Your task to perform on an android device: Find coffee shops on Maps Image 0: 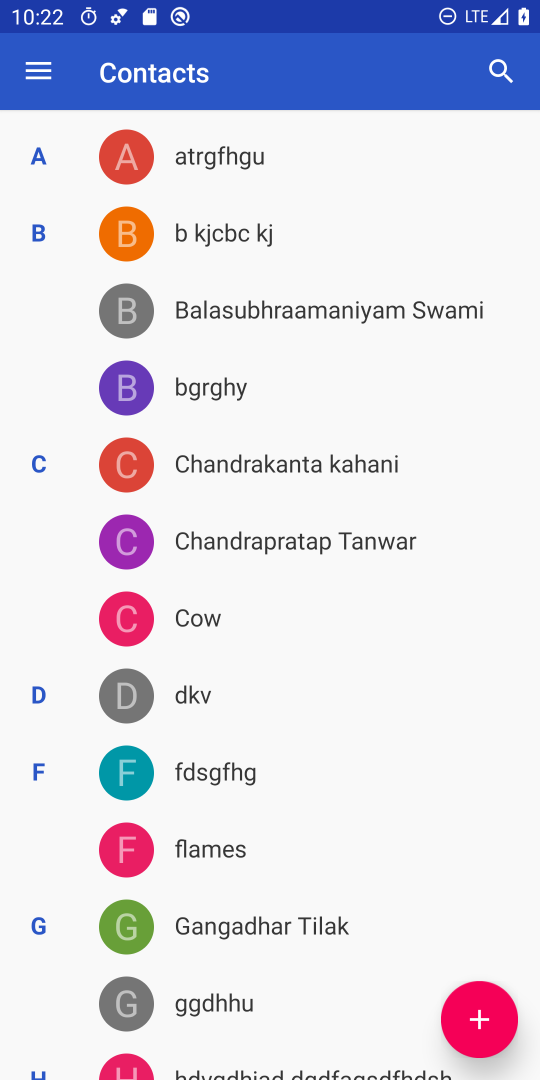
Step 0: press home button
Your task to perform on an android device: Find coffee shops on Maps Image 1: 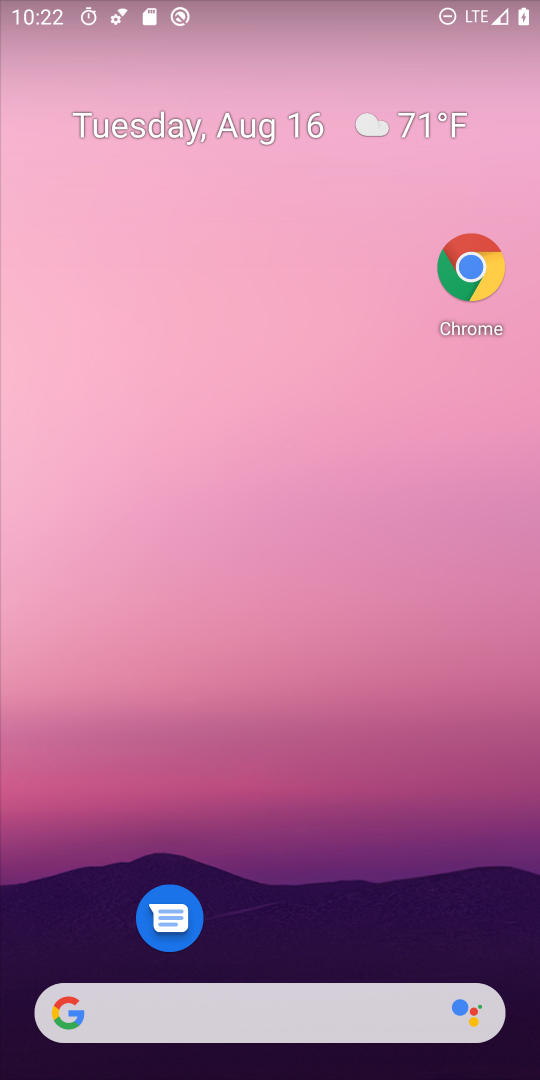
Step 1: drag from (257, 894) to (416, 2)
Your task to perform on an android device: Find coffee shops on Maps Image 2: 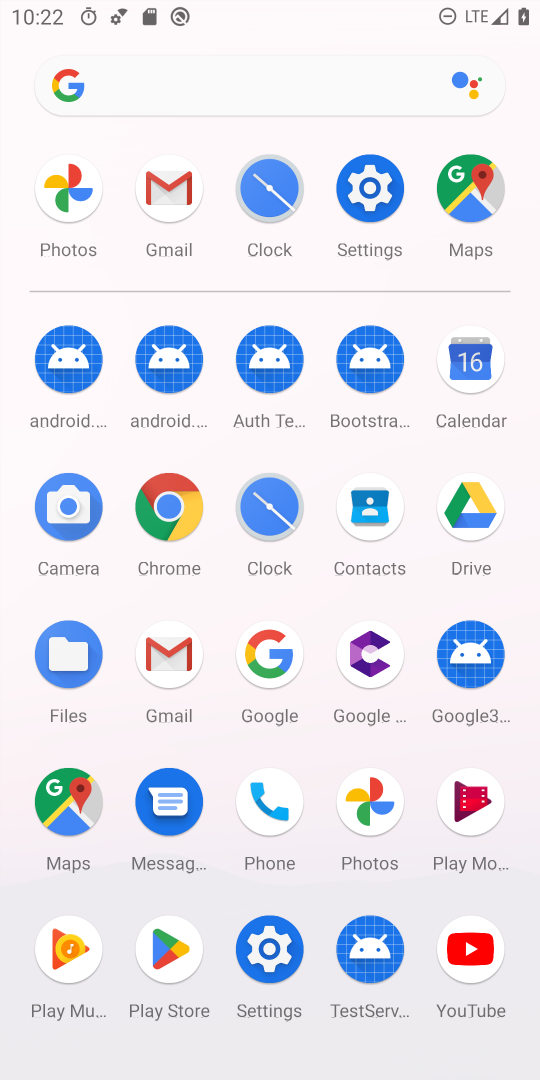
Step 2: click (87, 798)
Your task to perform on an android device: Find coffee shops on Maps Image 3: 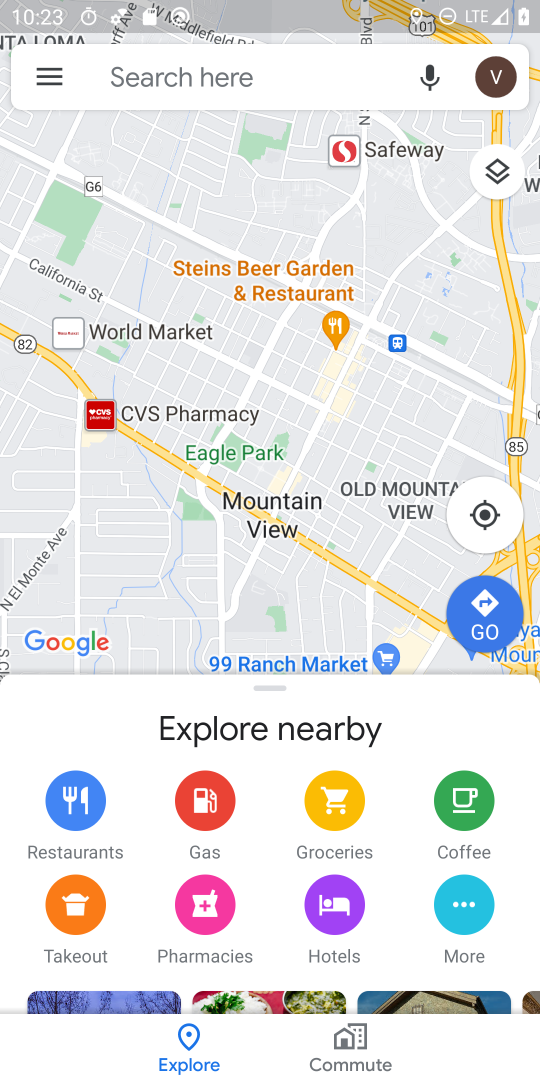
Step 3: click (225, 73)
Your task to perform on an android device: Find coffee shops on Maps Image 4: 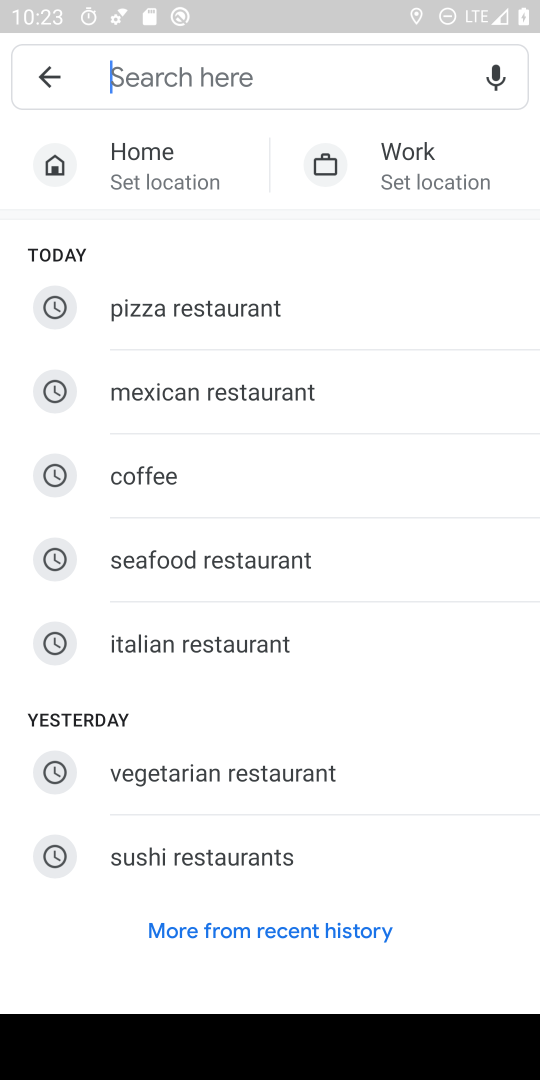
Step 4: type "coffee shops"
Your task to perform on an android device: Find coffee shops on Maps Image 5: 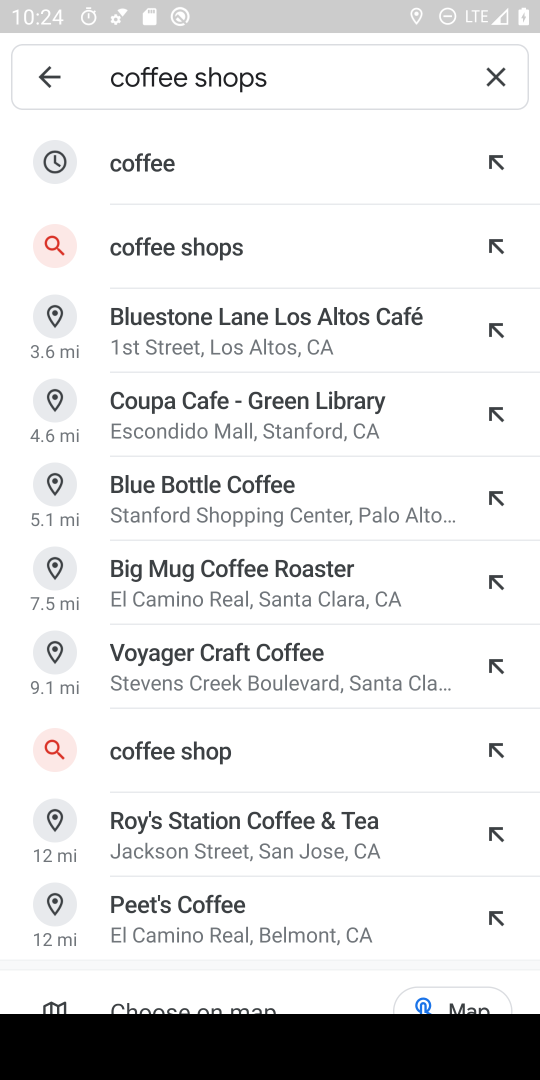
Step 5: click (154, 248)
Your task to perform on an android device: Find coffee shops on Maps Image 6: 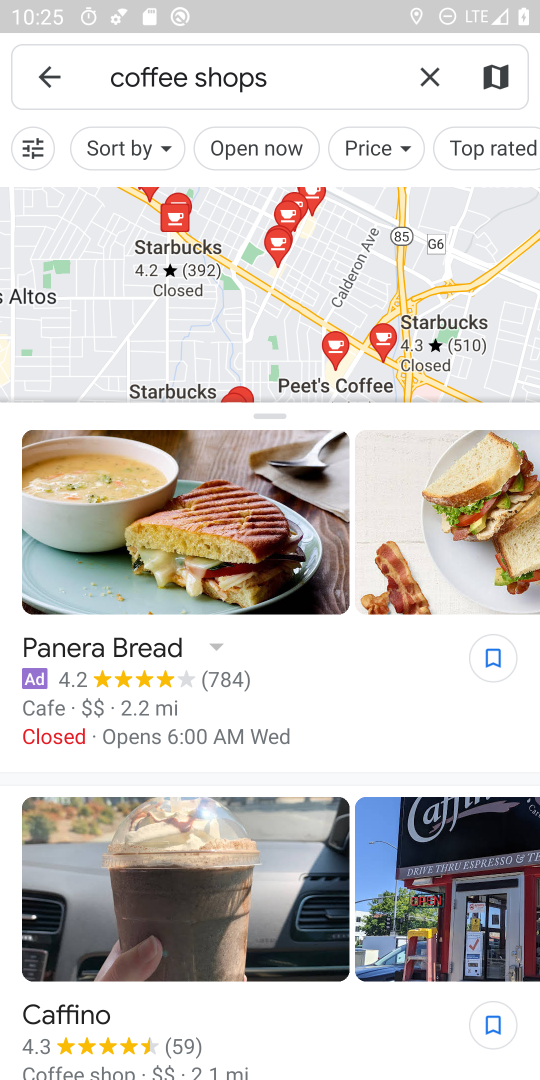
Step 6: task complete